Your task to perform on an android device: Open wifi settings Image 0: 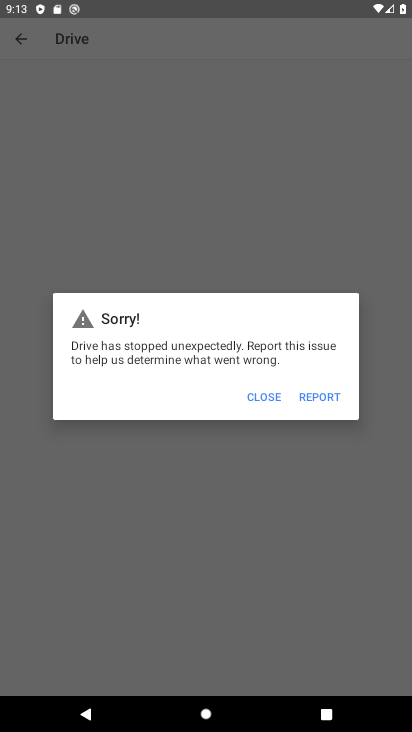
Step 0: press home button
Your task to perform on an android device: Open wifi settings Image 1: 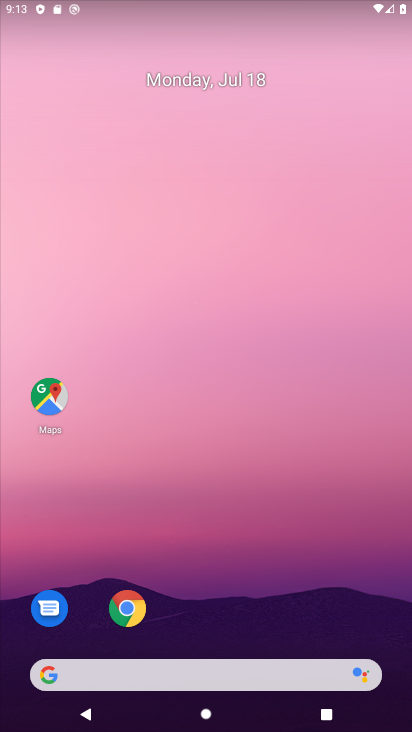
Step 1: drag from (201, 617) to (250, 30)
Your task to perform on an android device: Open wifi settings Image 2: 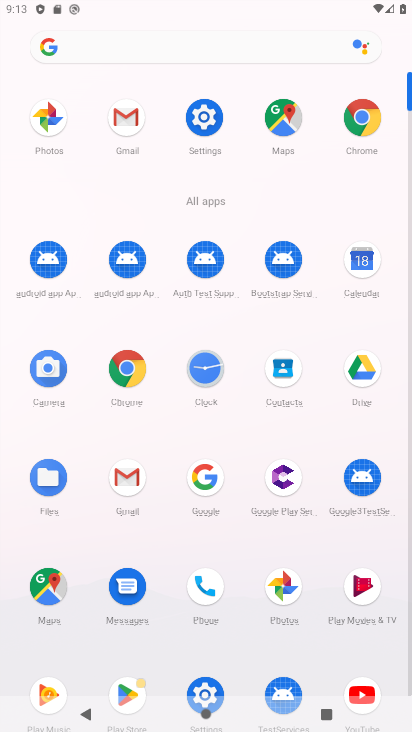
Step 2: drag from (222, 641) to (273, 290)
Your task to perform on an android device: Open wifi settings Image 3: 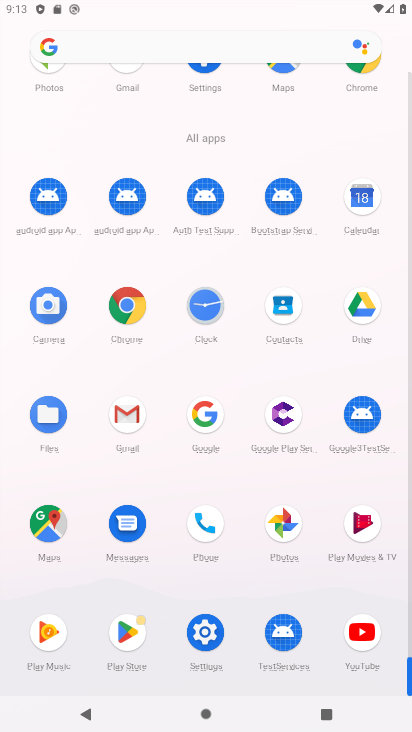
Step 3: click (205, 644)
Your task to perform on an android device: Open wifi settings Image 4: 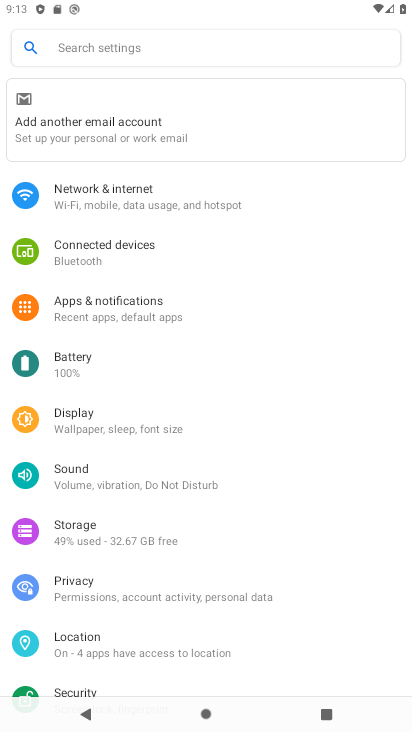
Step 4: click (125, 195)
Your task to perform on an android device: Open wifi settings Image 5: 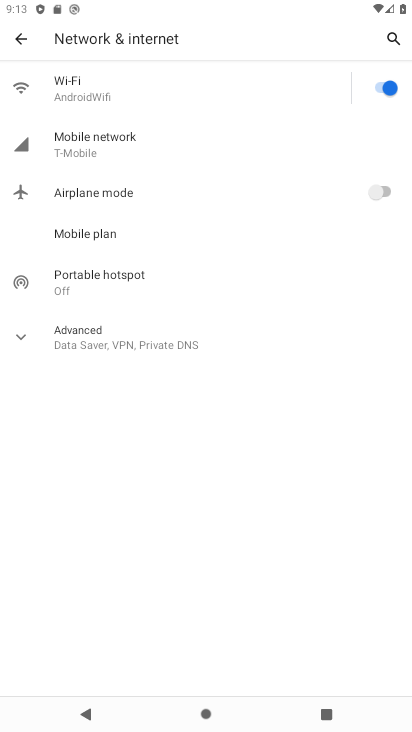
Step 5: click (105, 90)
Your task to perform on an android device: Open wifi settings Image 6: 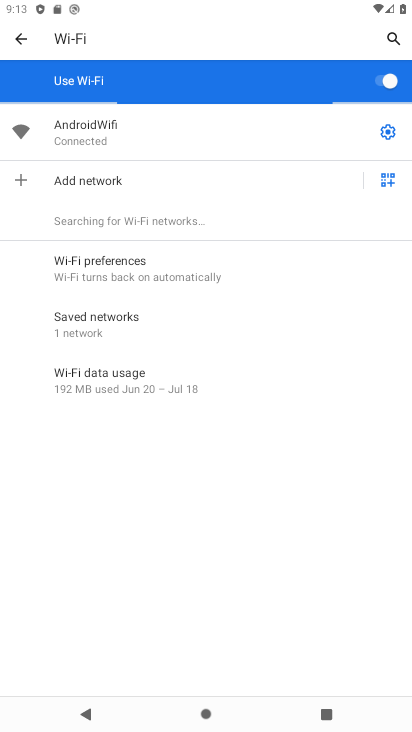
Step 6: task complete